Your task to perform on an android device: toggle notifications settings in the gmail app Image 0: 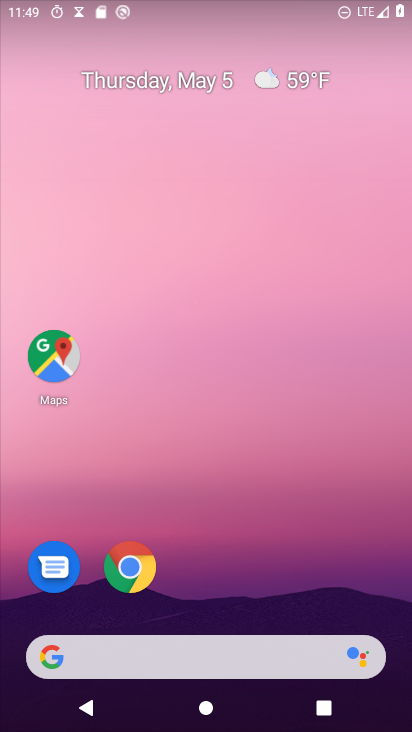
Step 0: press home button
Your task to perform on an android device: toggle notifications settings in the gmail app Image 1: 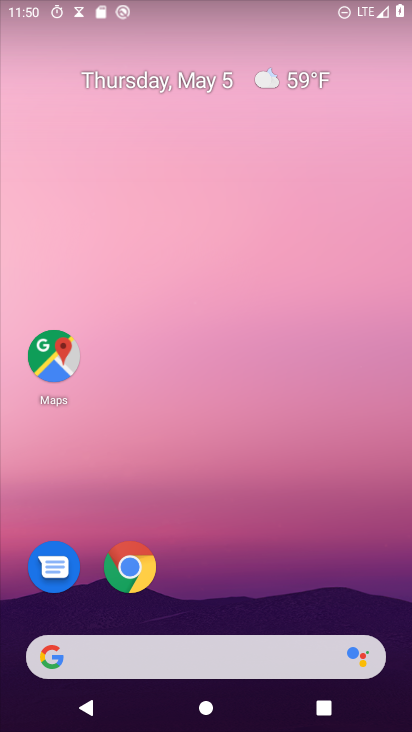
Step 1: drag from (357, 605) to (344, 0)
Your task to perform on an android device: toggle notifications settings in the gmail app Image 2: 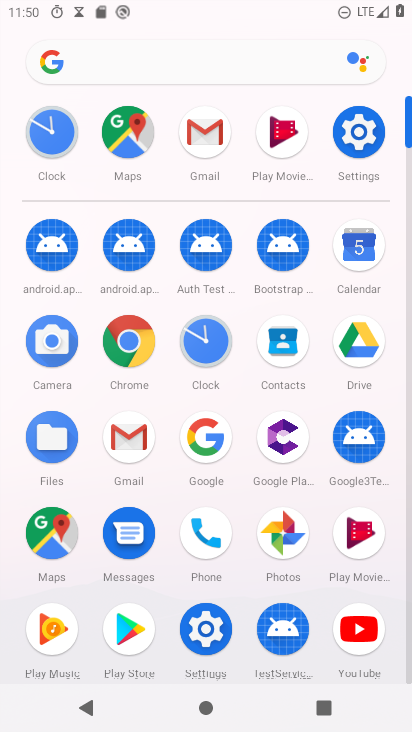
Step 2: click (210, 138)
Your task to perform on an android device: toggle notifications settings in the gmail app Image 3: 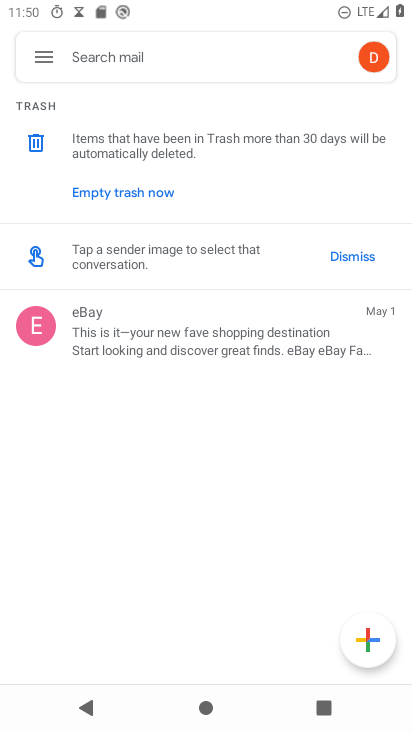
Step 3: click (43, 57)
Your task to perform on an android device: toggle notifications settings in the gmail app Image 4: 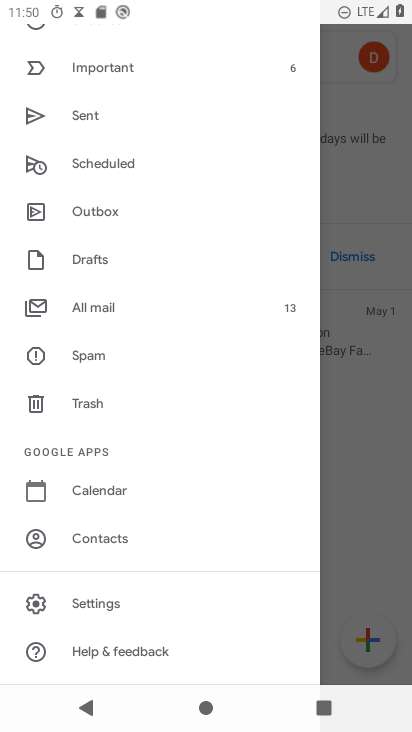
Step 4: click (85, 605)
Your task to perform on an android device: toggle notifications settings in the gmail app Image 5: 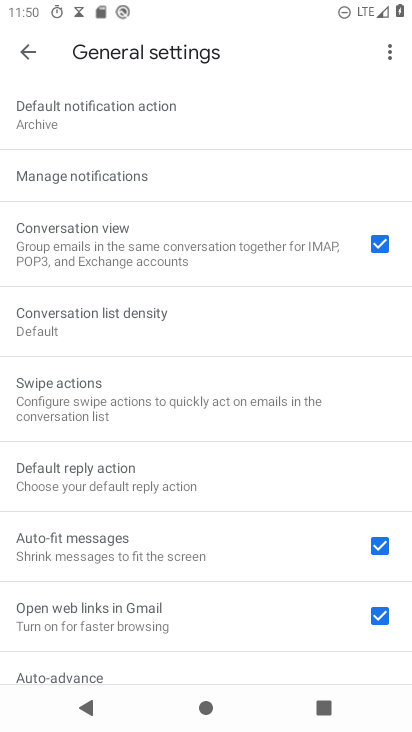
Step 5: click (87, 181)
Your task to perform on an android device: toggle notifications settings in the gmail app Image 6: 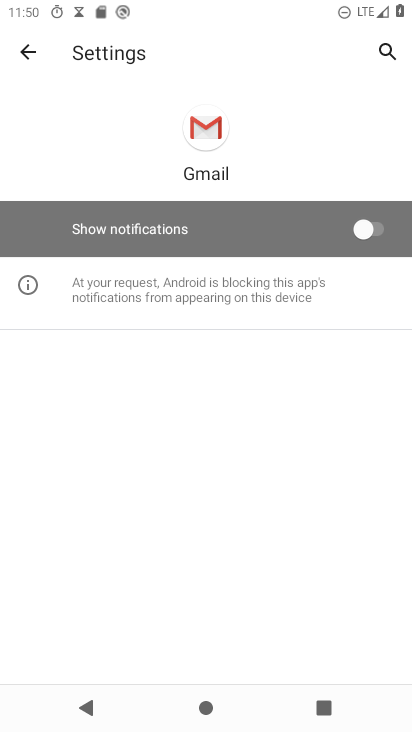
Step 6: click (355, 229)
Your task to perform on an android device: toggle notifications settings in the gmail app Image 7: 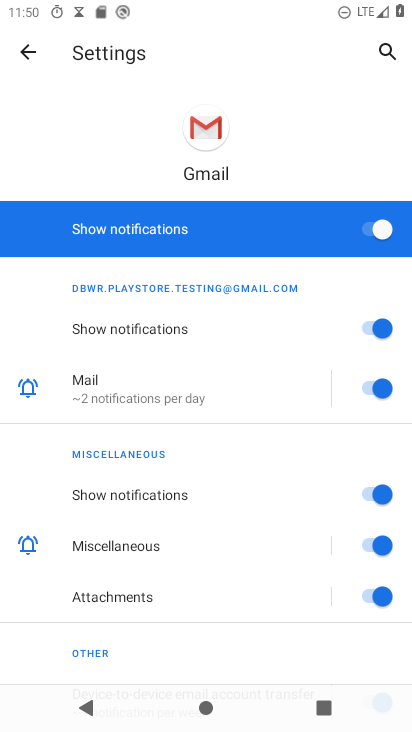
Step 7: task complete